Your task to perform on an android device: stop showing notifications on the lock screen Image 0: 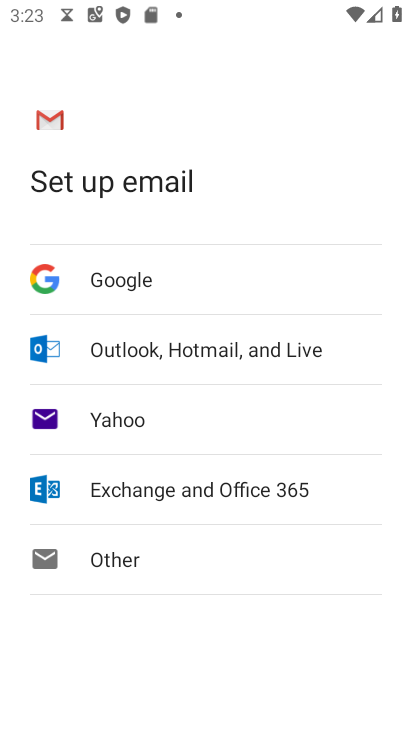
Step 0: press home button
Your task to perform on an android device: stop showing notifications on the lock screen Image 1: 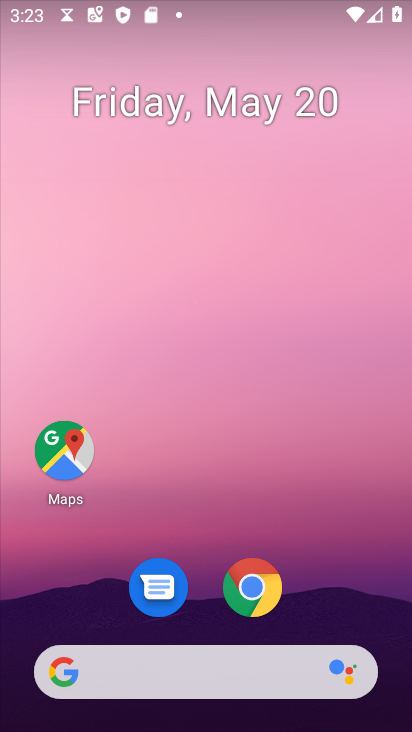
Step 1: drag from (376, 584) to (285, 211)
Your task to perform on an android device: stop showing notifications on the lock screen Image 2: 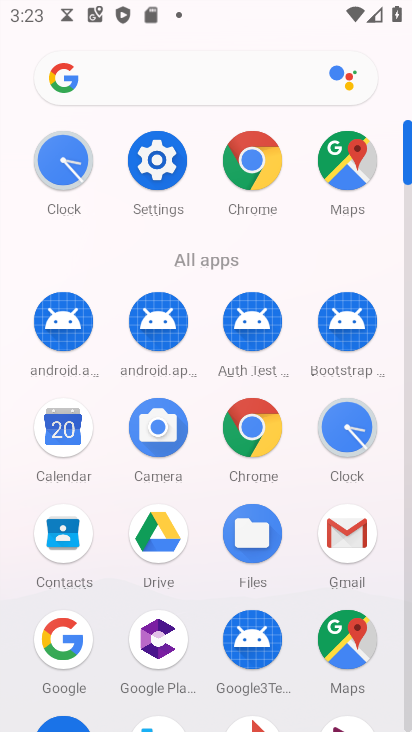
Step 2: click (169, 170)
Your task to perform on an android device: stop showing notifications on the lock screen Image 3: 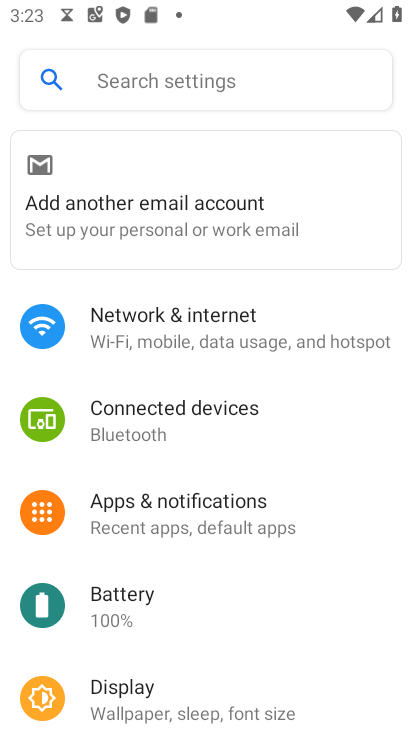
Step 3: click (279, 517)
Your task to perform on an android device: stop showing notifications on the lock screen Image 4: 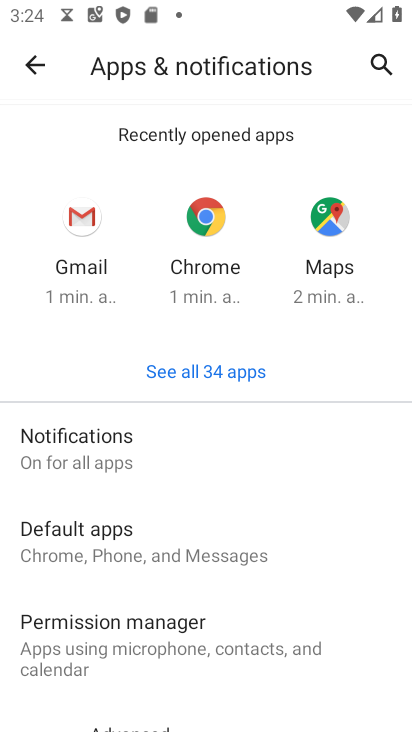
Step 4: click (243, 455)
Your task to perform on an android device: stop showing notifications on the lock screen Image 5: 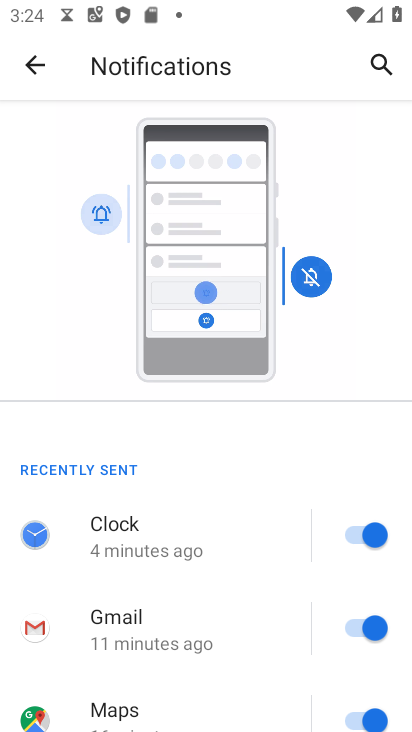
Step 5: drag from (292, 669) to (209, 179)
Your task to perform on an android device: stop showing notifications on the lock screen Image 6: 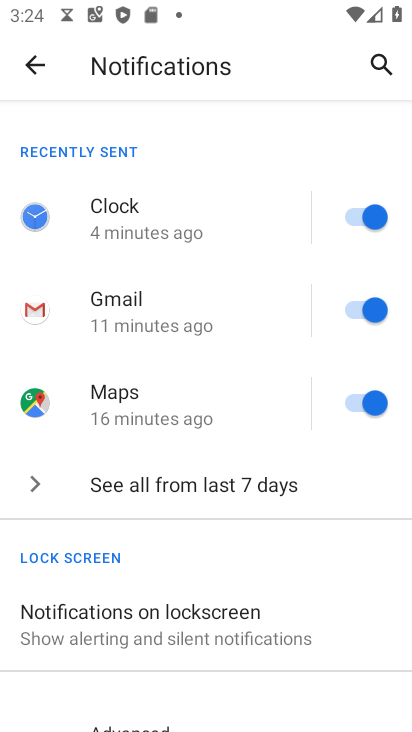
Step 6: drag from (256, 475) to (189, 197)
Your task to perform on an android device: stop showing notifications on the lock screen Image 7: 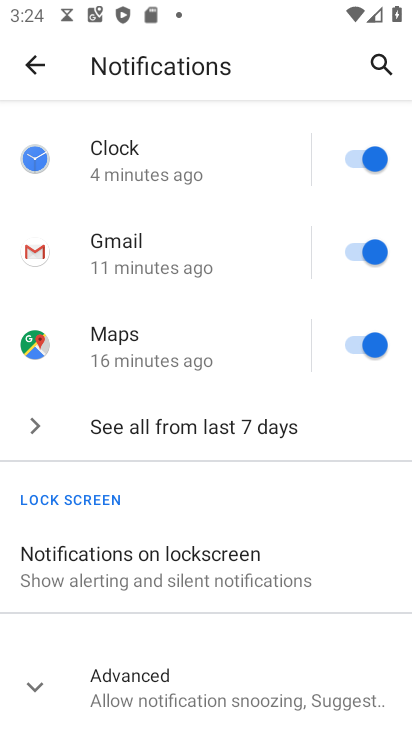
Step 7: click (270, 584)
Your task to perform on an android device: stop showing notifications on the lock screen Image 8: 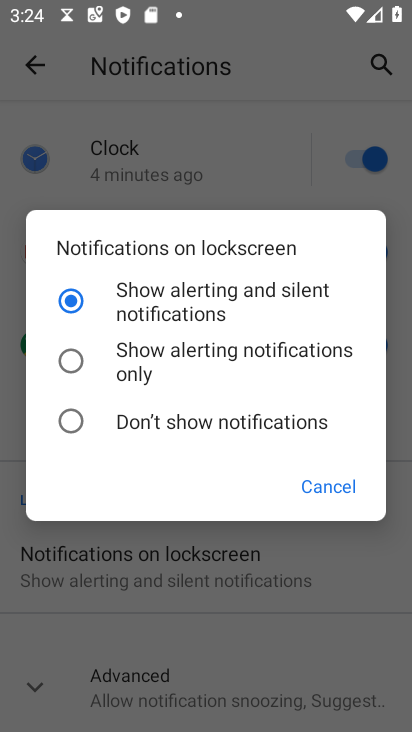
Step 8: click (231, 415)
Your task to perform on an android device: stop showing notifications on the lock screen Image 9: 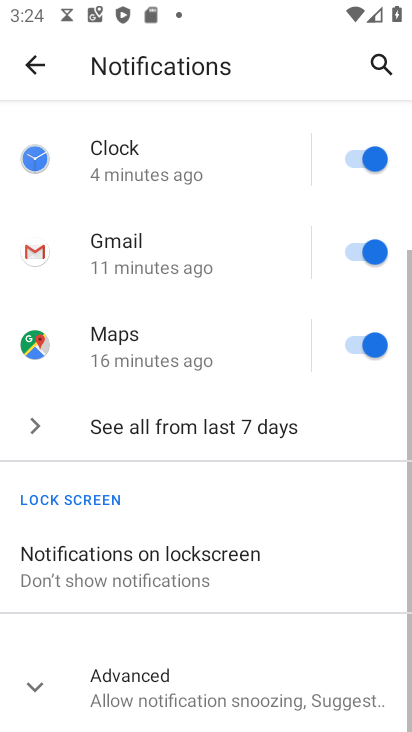
Step 9: task complete